Your task to perform on an android device: set an alarm Image 0: 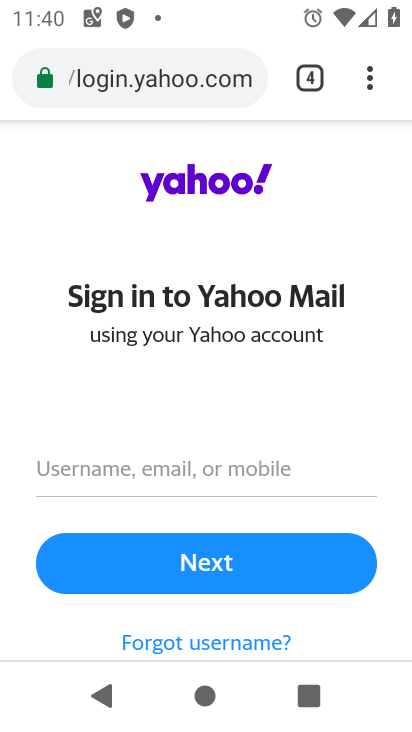
Step 0: press home button
Your task to perform on an android device: set an alarm Image 1: 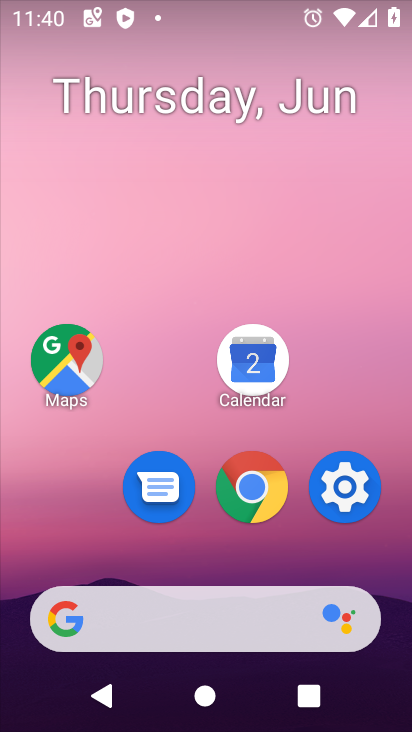
Step 1: drag from (247, 647) to (241, 0)
Your task to perform on an android device: set an alarm Image 2: 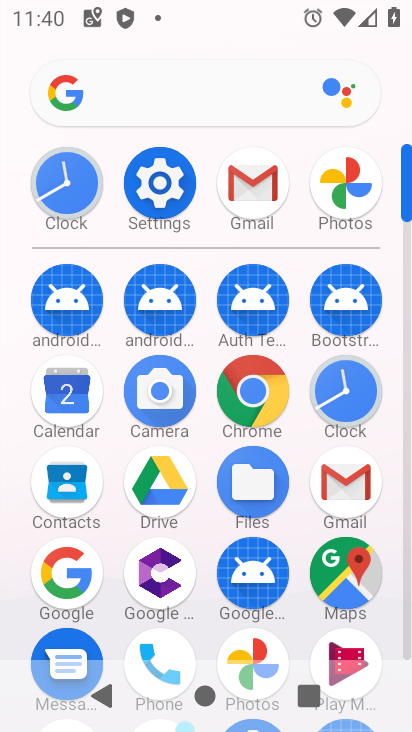
Step 2: click (75, 199)
Your task to perform on an android device: set an alarm Image 3: 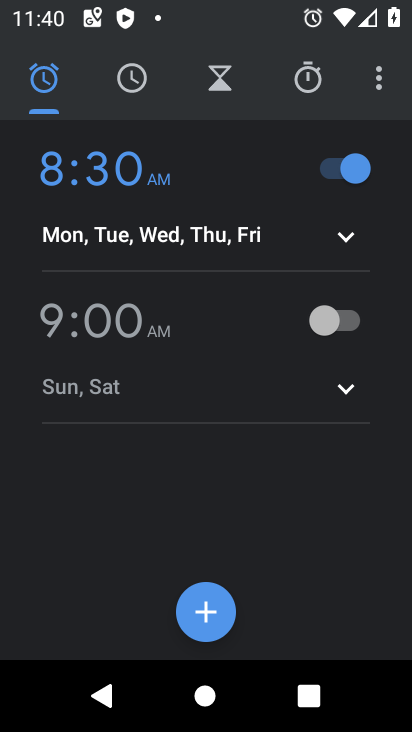
Step 3: click (346, 326)
Your task to perform on an android device: set an alarm Image 4: 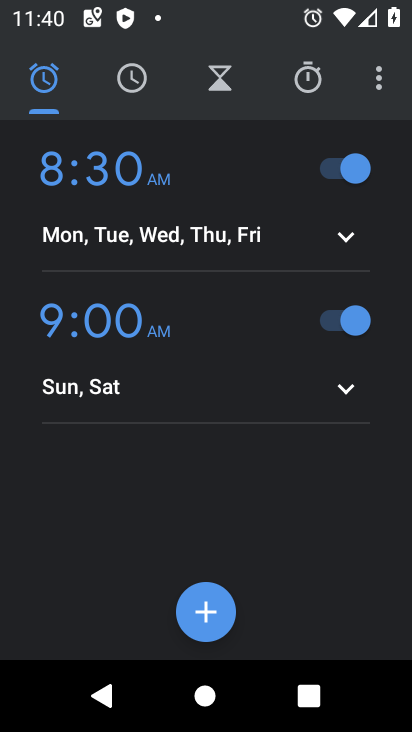
Step 4: task complete